Your task to perform on an android device: turn off notifications in google photos Image 0: 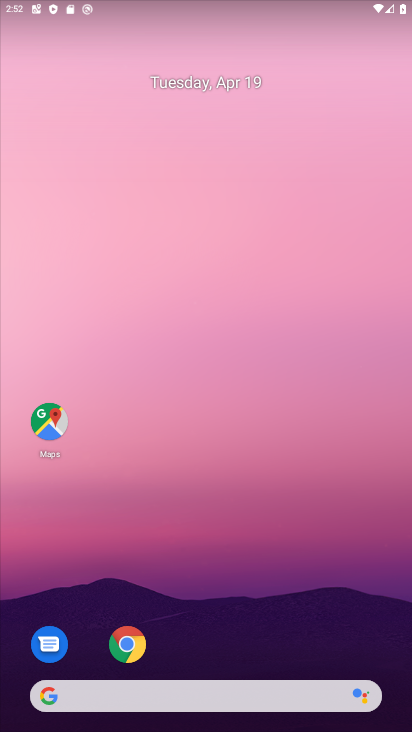
Step 0: drag from (262, 637) to (240, 157)
Your task to perform on an android device: turn off notifications in google photos Image 1: 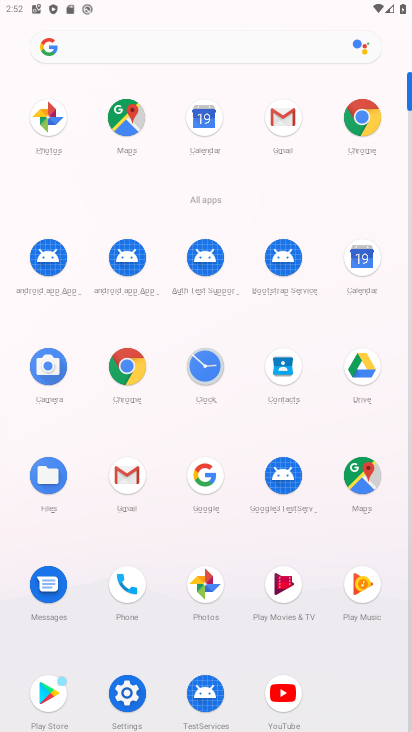
Step 1: click (205, 582)
Your task to perform on an android device: turn off notifications in google photos Image 2: 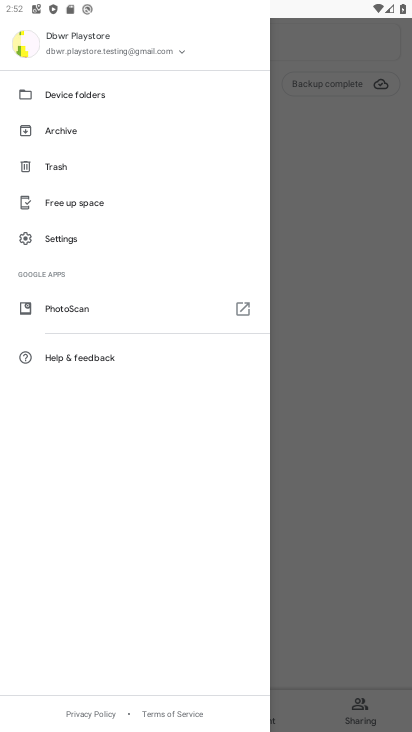
Step 2: click (336, 426)
Your task to perform on an android device: turn off notifications in google photos Image 3: 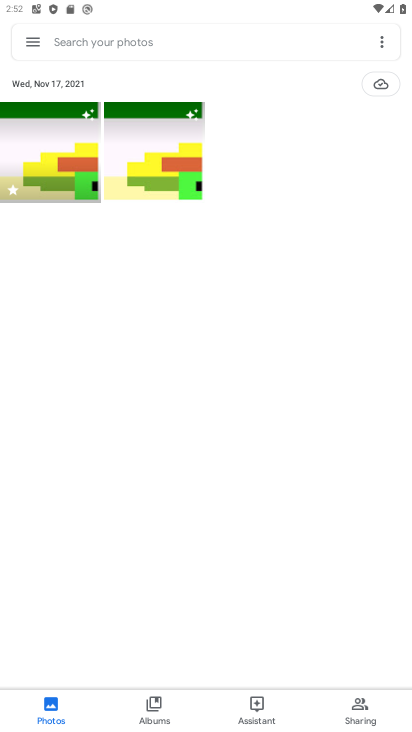
Step 3: click (26, 35)
Your task to perform on an android device: turn off notifications in google photos Image 4: 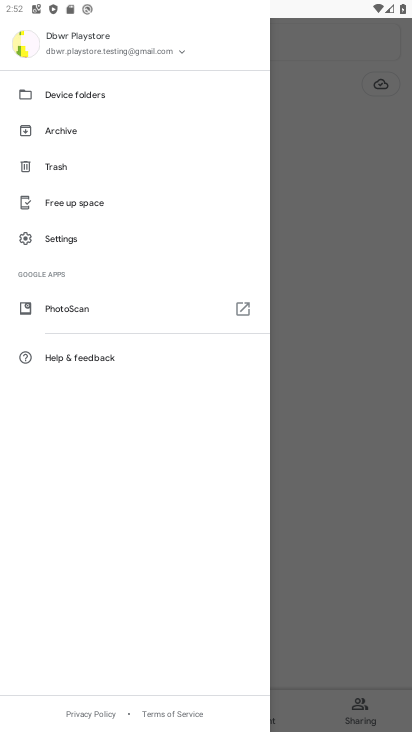
Step 4: click (57, 234)
Your task to perform on an android device: turn off notifications in google photos Image 5: 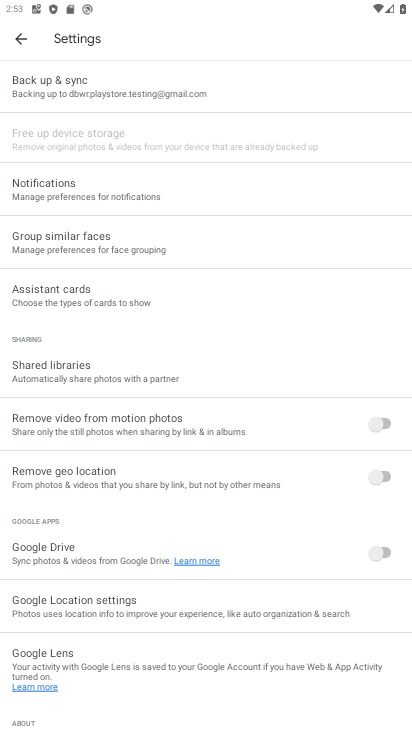
Step 5: drag from (280, 362) to (240, 142)
Your task to perform on an android device: turn off notifications in google photos Image 6: 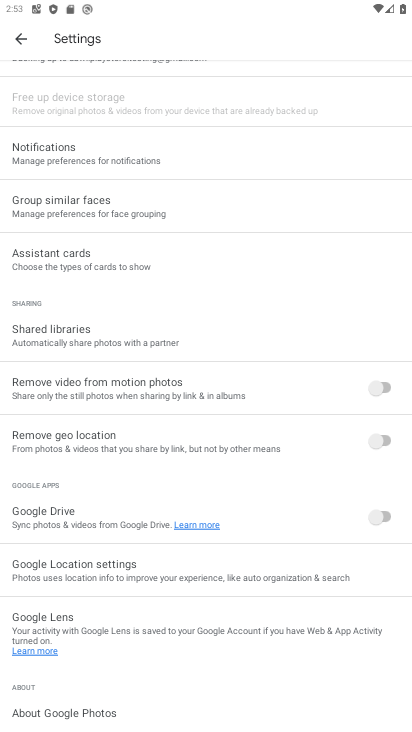
Step 6: click (195, 145)
Your task to perform on an android device: turn off notifications in google photos Image 7: 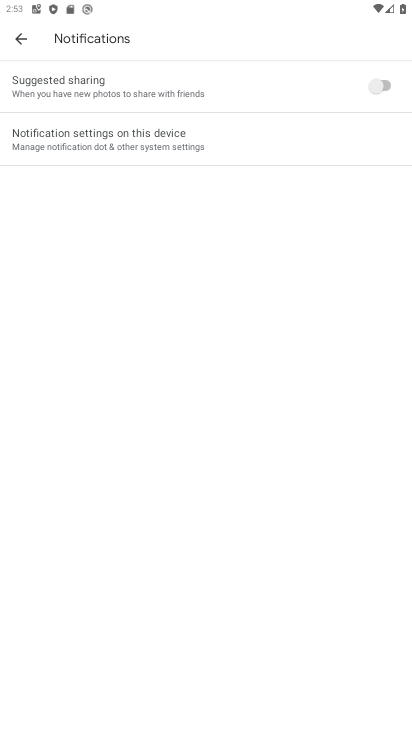
Step 7: click (195, 145)
Your task to perform on an android device: turn off notifications in google photos Image 8: 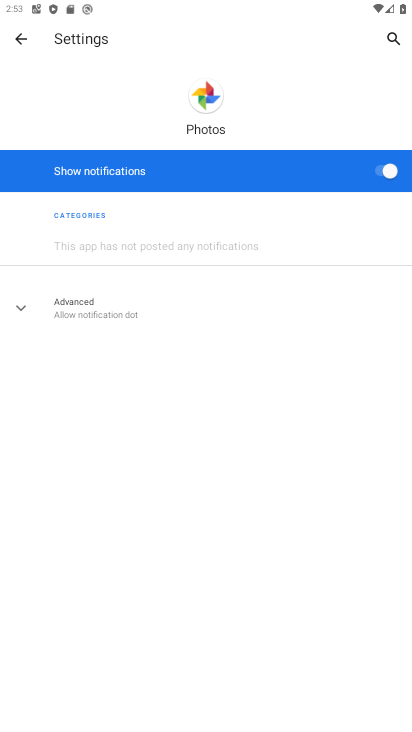
Step 8: click (301, 160)
Your task to perform on an android device: turn off notifications in google photos Image 9: 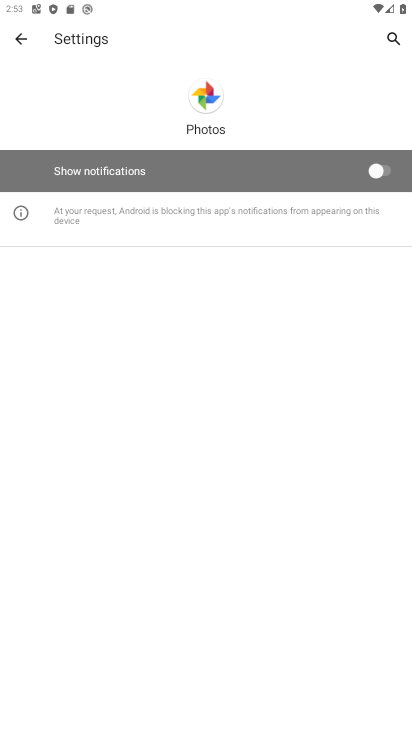
Step 9: task complete